Your task to perform on an android device: Open the phone app and click the voicemail tab. Image 0: 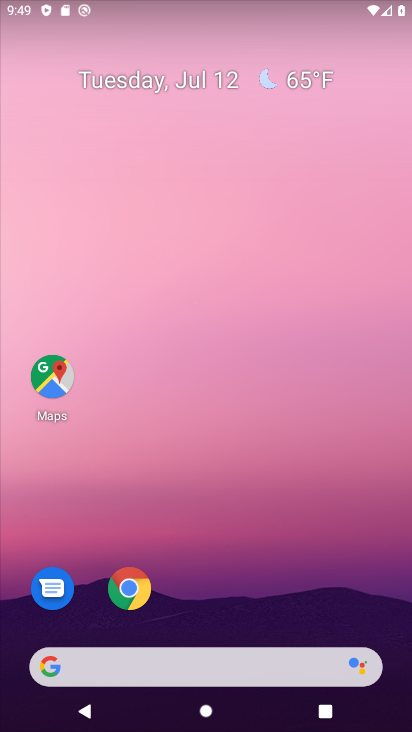
Step 0: drag from (13, 712) to (309, 17)
Your task to perform on an android device: Open the phone app and click the voicemail tab. Image 1: 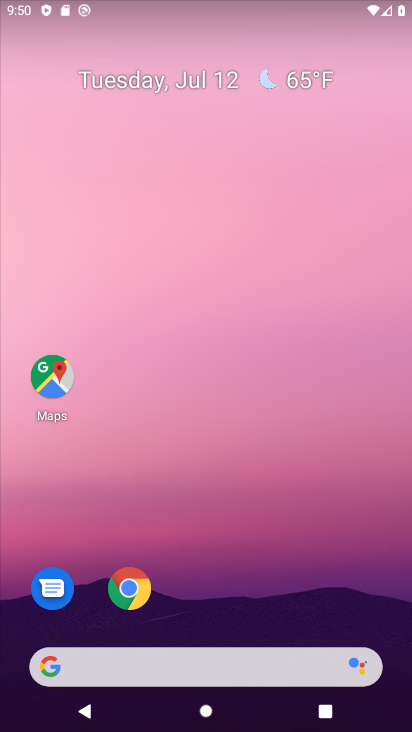
Step 1: drag from (39, 716) to (228, 159)
Your task to perform on an android device: Open the phone app and click the voicemail tab. Image 2: 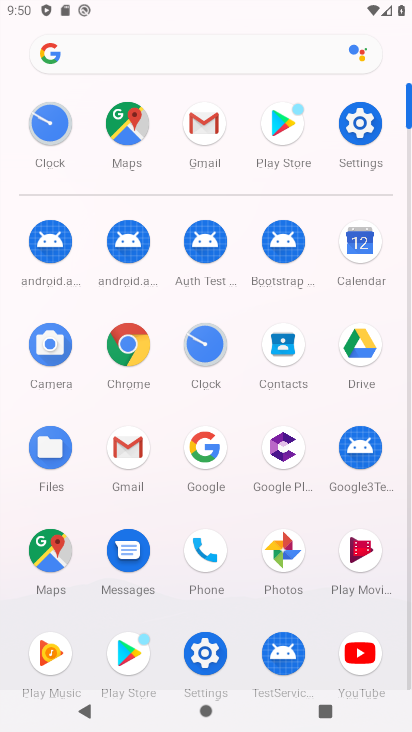
Step 2: click (201, 565)
Your task to perform on an android device: Open the phone app and click the voicemail tab. Image 3: 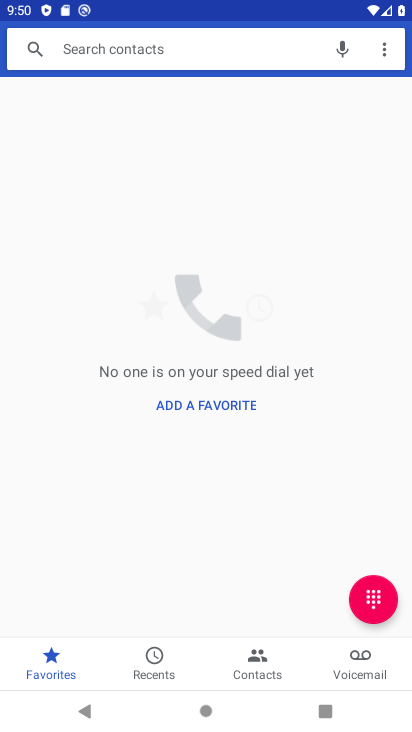
Step 3: click (357, 671)
Your task to perform on an android device: Open the phone app and click the voicemail tab. Image 4: 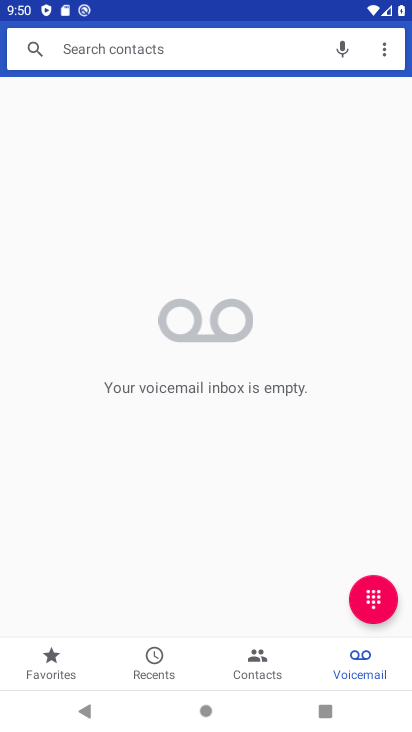
Step 4: task complete